Your task to perform on an android device: search for console tables on article.com Image 0: 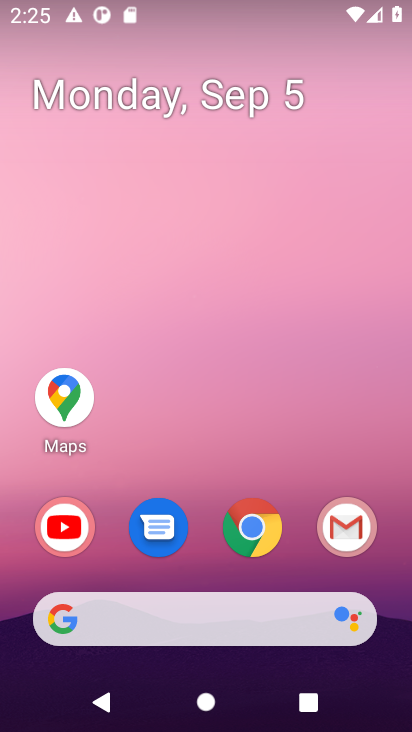
Step 0: click (256, 524)
Your task to perform on an android device: search for console tables on article.com Image 1: 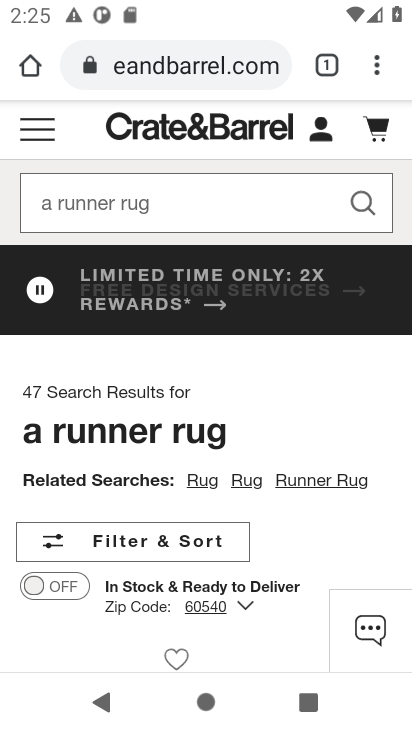
Step 1: click (220, 63)
Your task to perform on an android device: search for console tables on article.com Image 2: 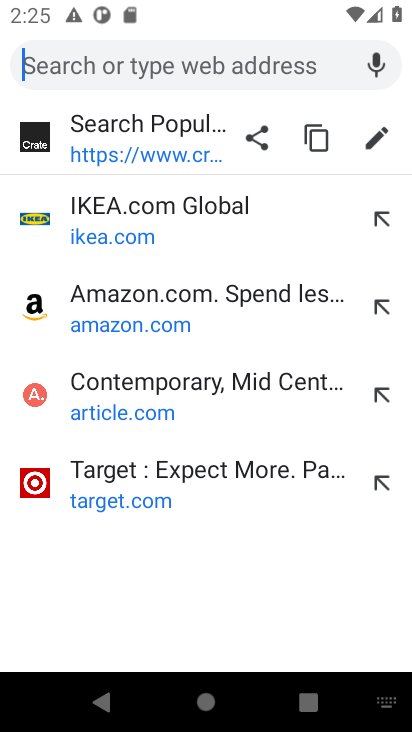
Step 2: type "Articles.com"
Your task to perform on an android device: search for console tables on article.com Image 3: 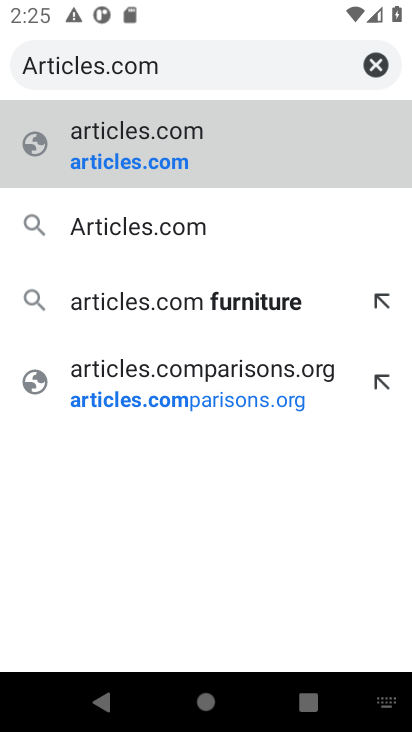
Step 3: click (192, 131)
Your task to perform on an android device: search for console tables on article.com Image 4: 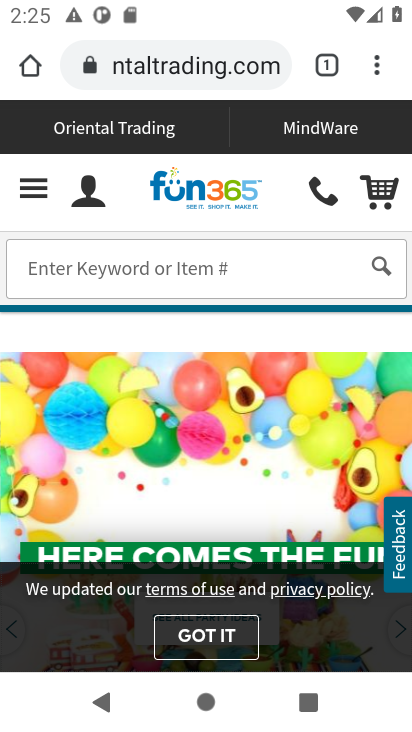
Step 4: click (250, 265)
Your task to perform on an android device: search for console tables on article.com Image 5: 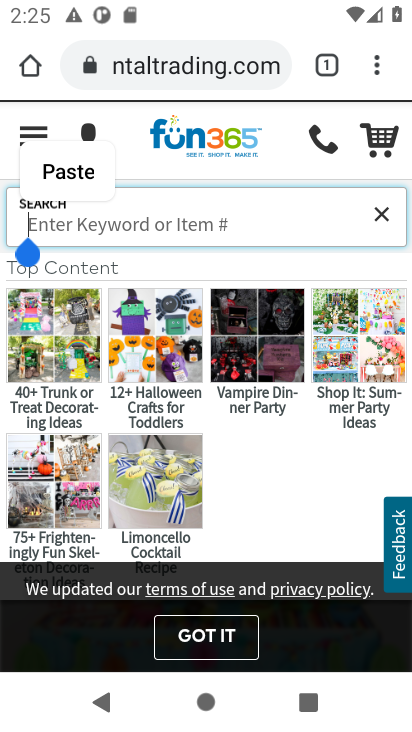
Step 5: click (217, 85)
Your task to perform on an android device: search for console tables on article.com Image 6: 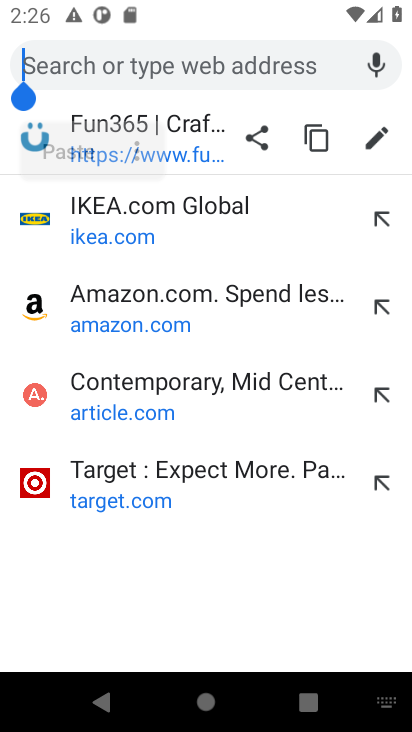
Step 6: click (166, 73)
Your task to perform on an android device: search for console tables on article.com Image 7: 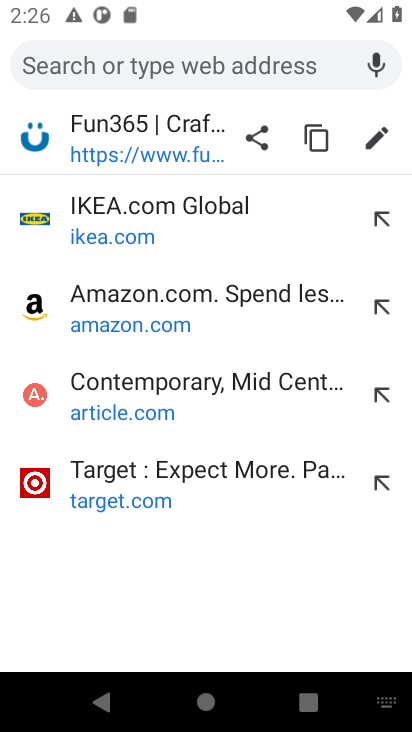
Step 7: type "Article.com"
Your task to perform on an android device: search for console tables on article.com Image 8: 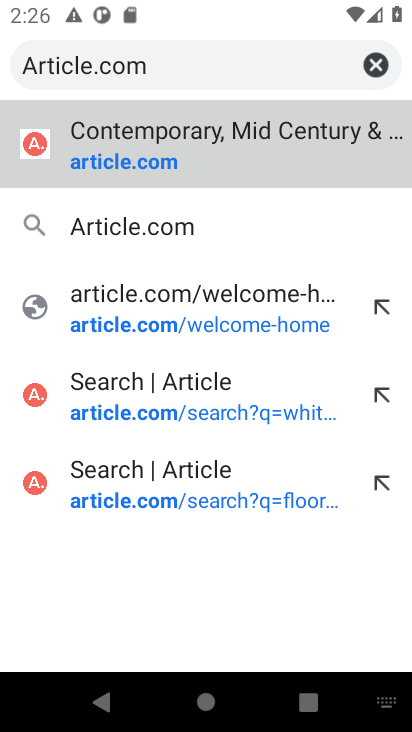
Step 8: type "Article.com"
Your task to perform on an android device: search for console tables on article.com Image 9: 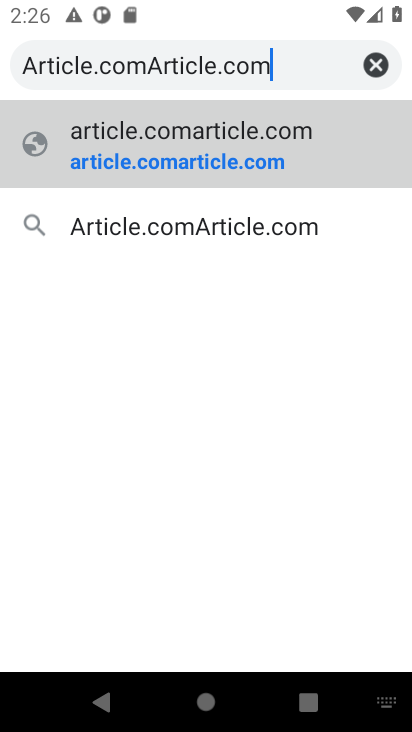
Step 9: click (215, 145)
Your task to perform on an android device: search for console tables on article.com Image 10: 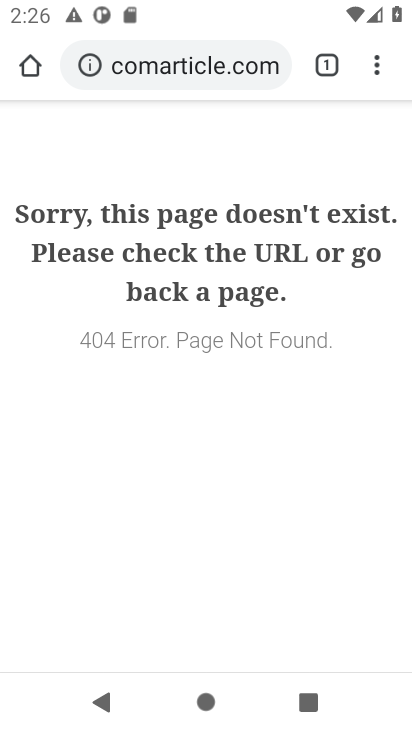
Step 10: task complete